Your task to perform on an android device: turn on the 24-hour format for clock Image 0: 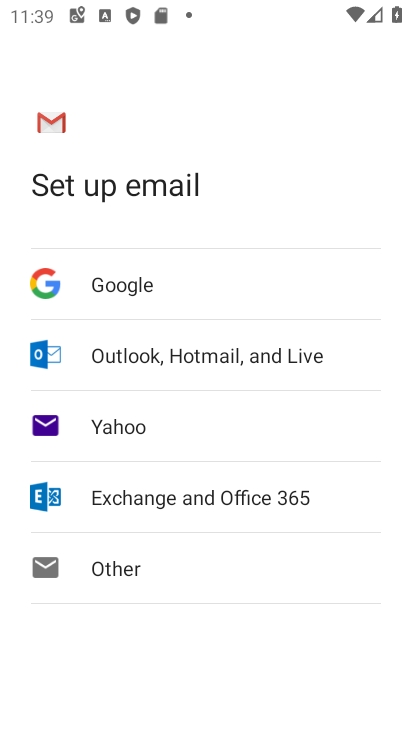
Step 0: press home button
Your task to perform on an android device: turn on the 24-hour format for clock Image 1: 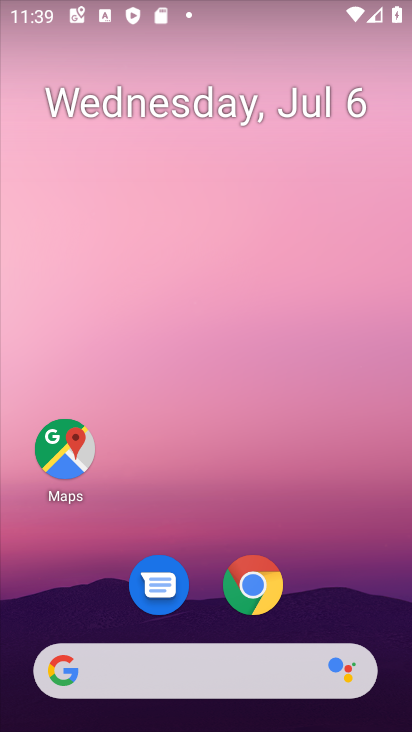
Step 1: drag from (227, 498) to (189, 1)
Your task to perform on an android device: turn on the 24-hour format for clock Image 2: 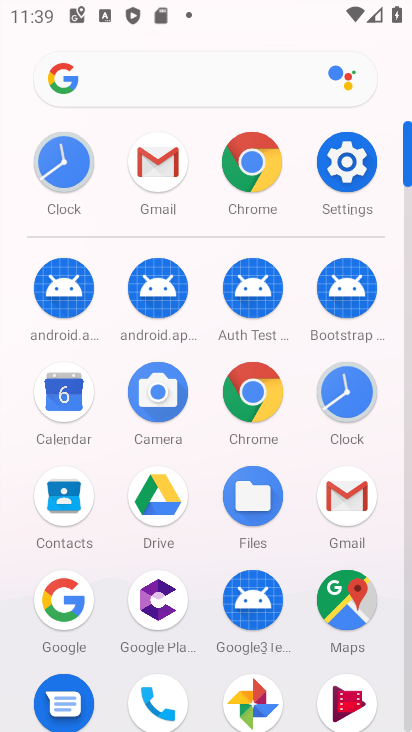
Step 2: click (68, 159)
Your task to perform on an android device: turn on the 24-hour format for clock Image 3: 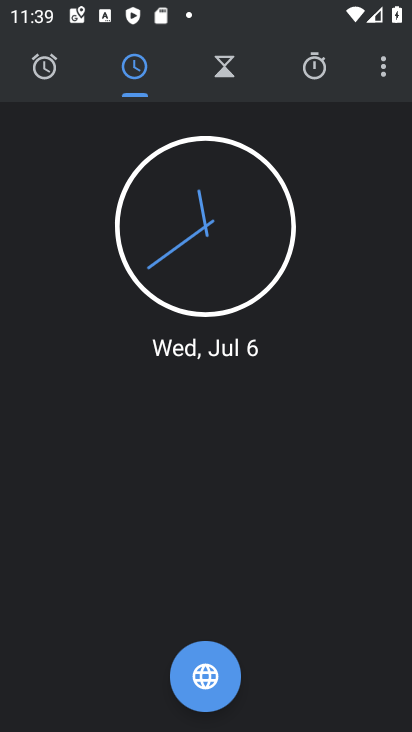
Step 3: click (387, 72)
Your task to perform on an android device: turn on the 24-hour format for clock Image 4: 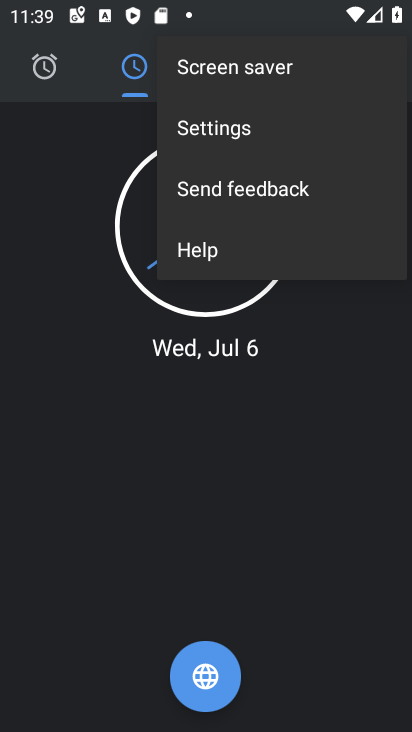
Step 4: click (311, 132)
Your task to perform on an android device: turn on the 24-hour format for clock Image 5: 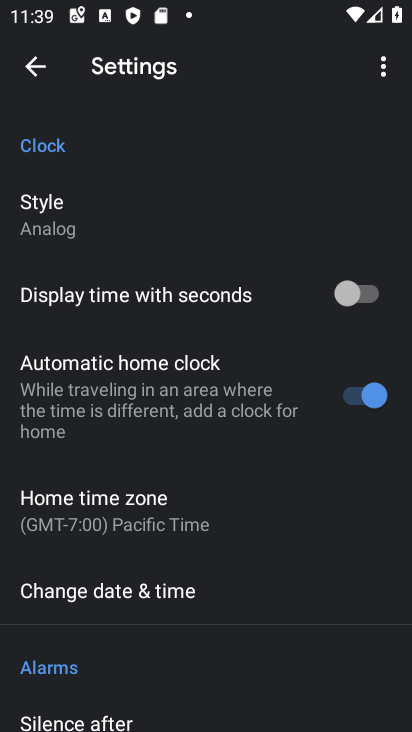
Step 5: click (205, 592)
Your task to perform on an android device: turn on the 24-hour format for clock Image 6: 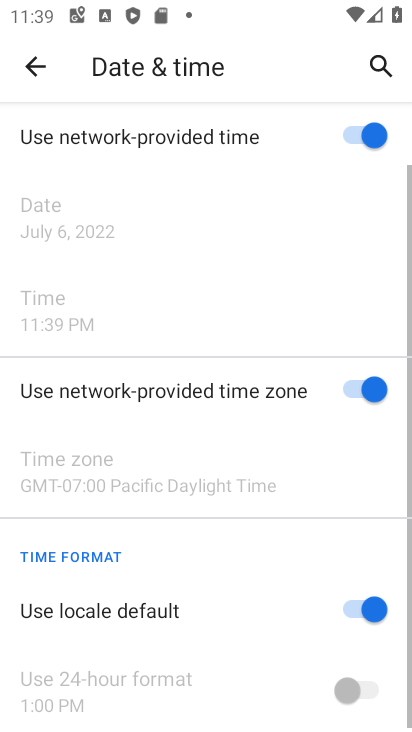
Step 6: drag from (313, 521) to (309, 318)
Your task to perform on an android device: turn on the 24-hour format for clock Image 7: 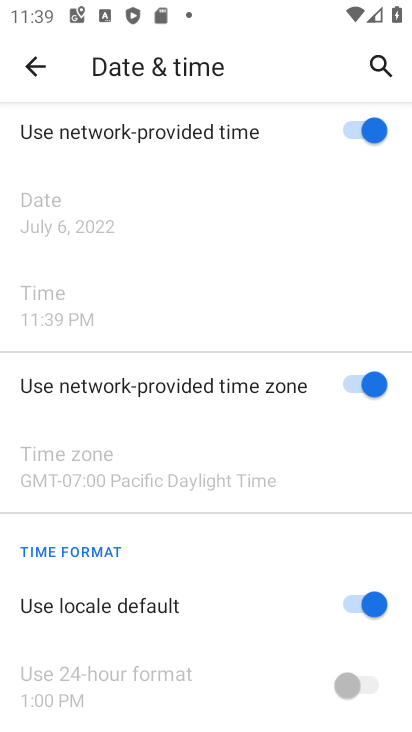
Step 7: click (361, 592)
Your task to perform on an android device: turn on the 24-hour format for clock Image 8: 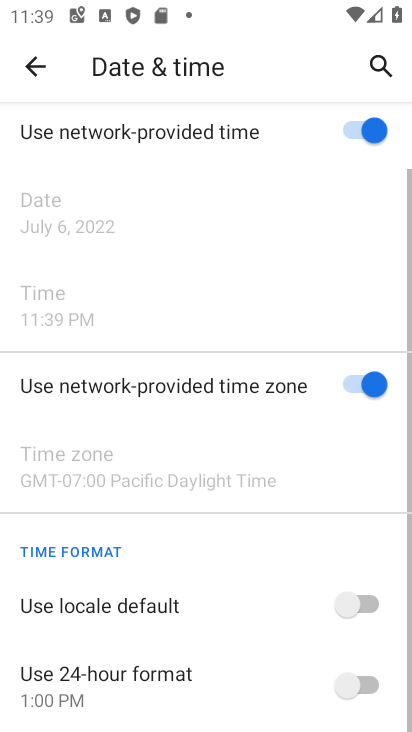
Step 8: click (365, 672)
Your task to perform on an android device: turn on the 24-hour format for clock Image 9: 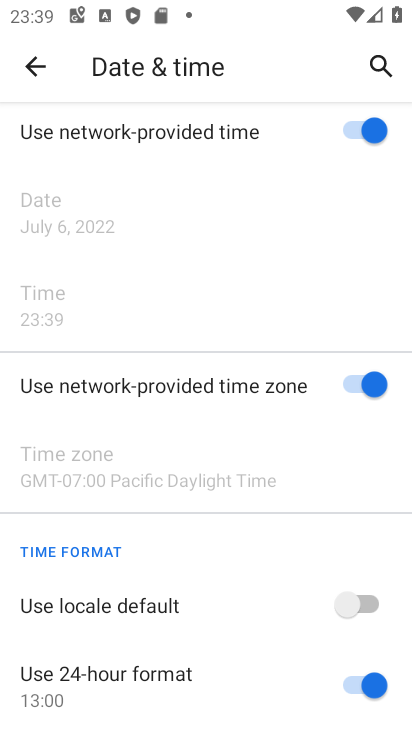
Step 9: task complete